Your task to perform on an android device: move an email to a new category in the gmail app Image 0: 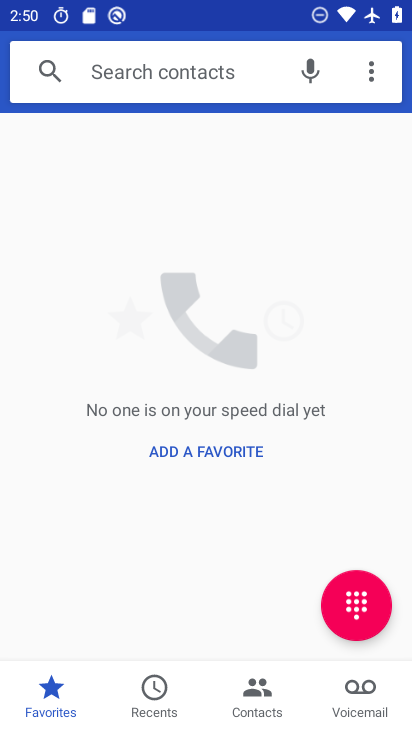
Step 0: press home button
Your task to perform on an android device: move an email to a new category in the gmail app Image 1: 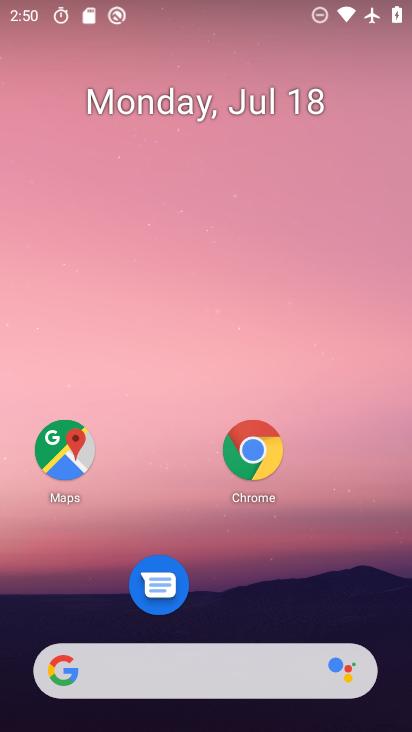
Step 1: drag from (168, 644) to (322, 8)
Your task to perform on an android device: move an email to a new category in the gmail app Image 2: 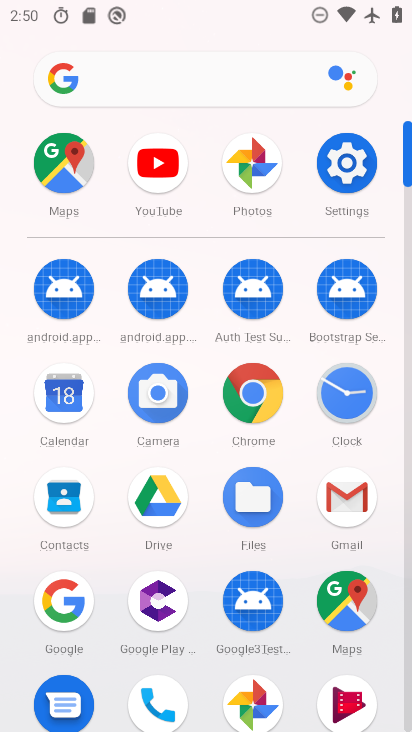
Step 2: click (339, 494)
Your task to perform on an android device: move an email to a new category in the gmail app Image 3: 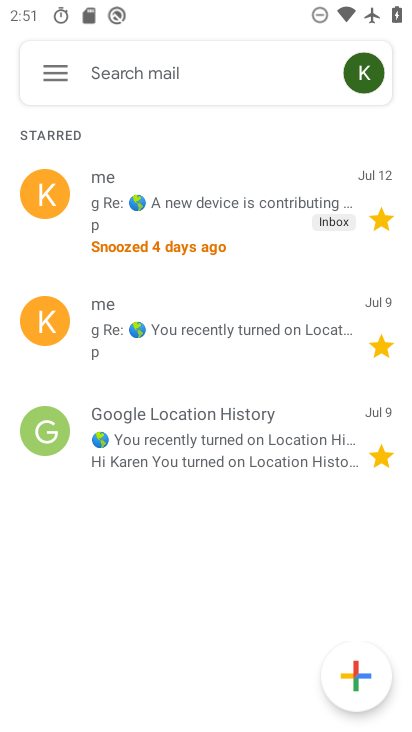
Step 3: click (49, 199)
Your task to perform on an android device: move an email to a new category in the gmail app Image 4: 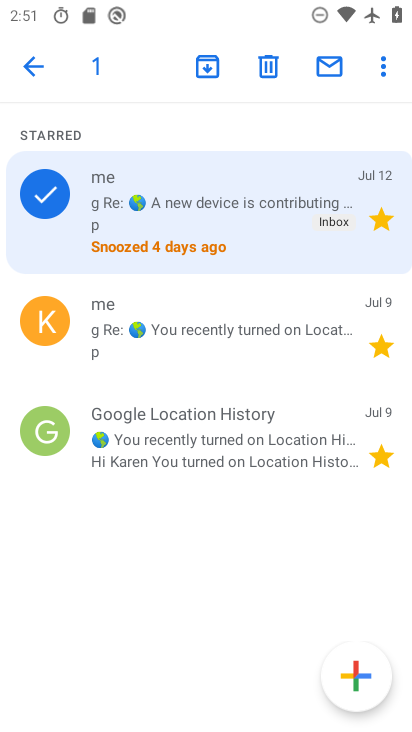
Step 4: click (387, 64)
Your task to perform on an android device: move an email to a new category in the gmail app Image 5: 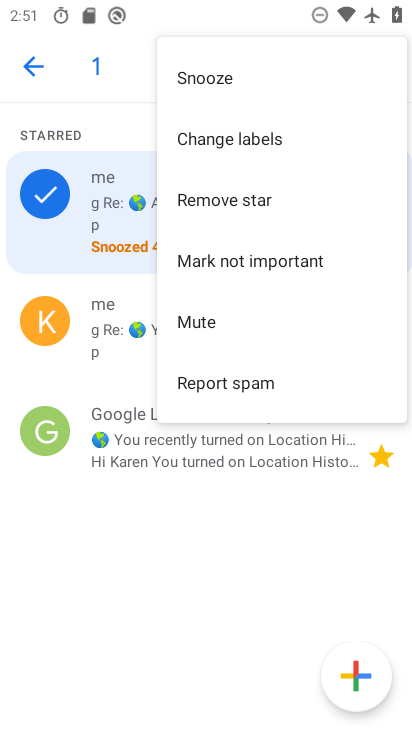
Step 5: click (155, 546)
Your task to perform on an android device: move an email to a new category in the gmail app Image 6: 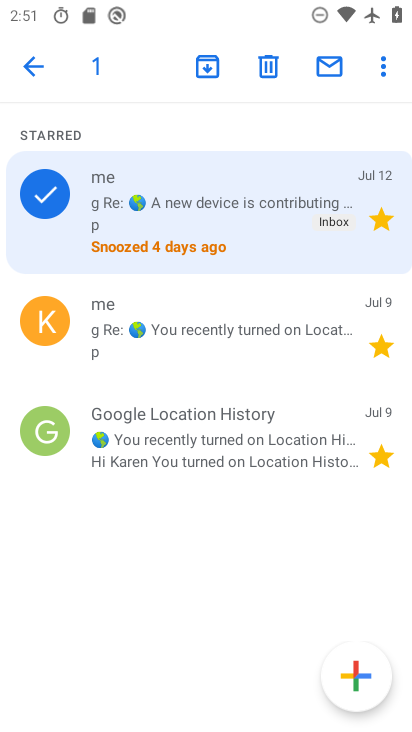
Step 6: click (44, 191)
Your task to perform on an android device: move an email to a new category in the gmail app Image 7: 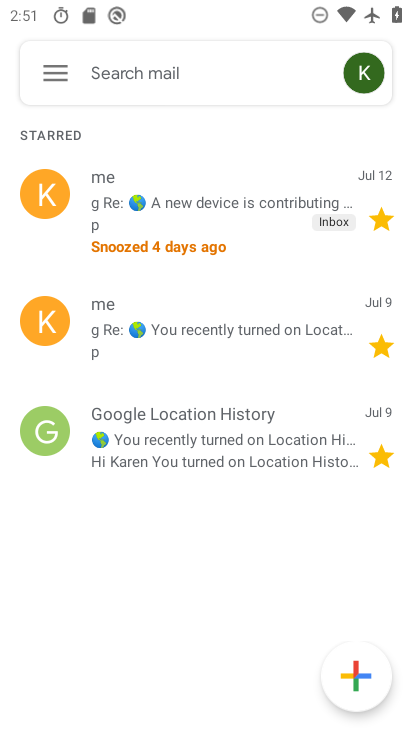
Step 7: click (53, 72)
Your task to perform on an android device: move an email to a new category in the gmail app Image 8: 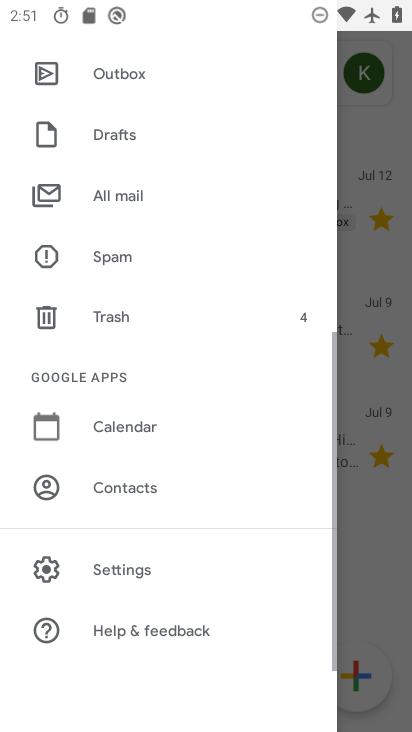
Step 8: drag from (240, 146) to (138, 545)
Your task to perform on an android device: move an email to a new category in the gmail app Image 9: 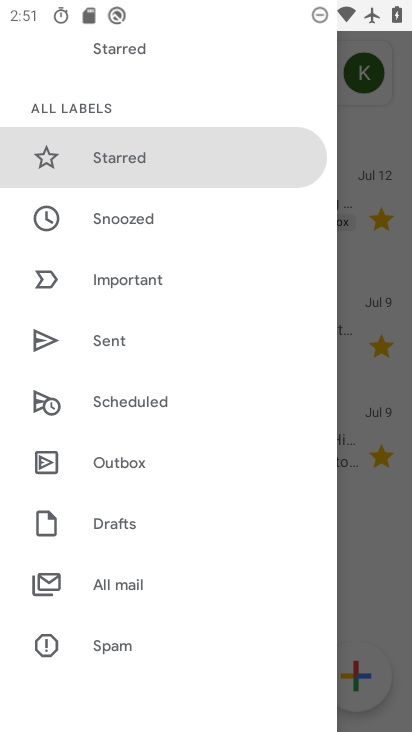
Step 9: drag from (208, 69) to (167, 562)
Your task to perform on an android device: move an email to a new category in the gmail app Image 10: 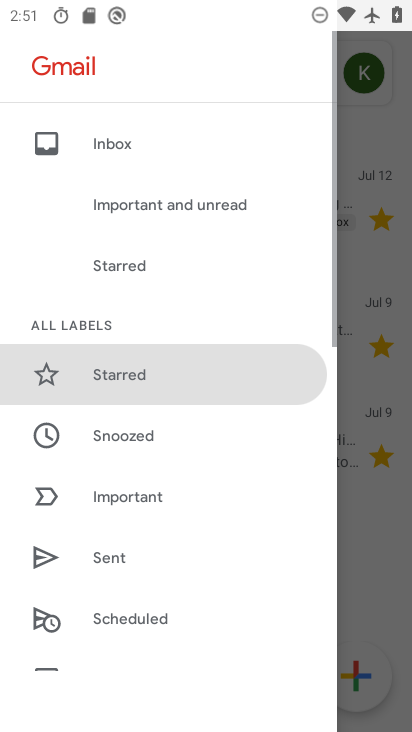
Step 10: click (119, 138)
Your task to perform on an android device: move an email to a new category in the gmail app Image 11: 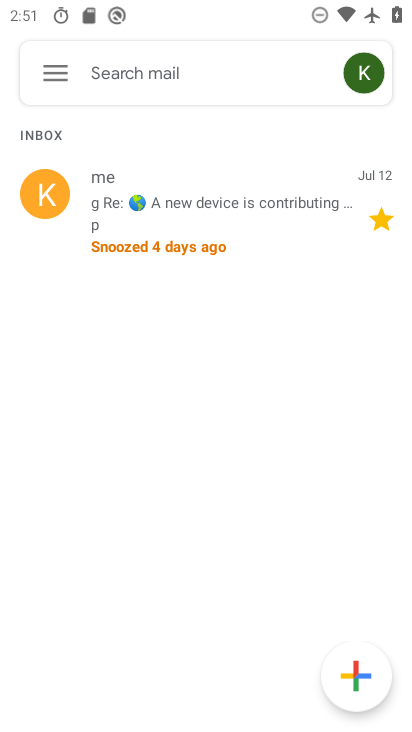
Step 11: click (56, 195)
Your task to perform on an android device: move an email to a new category in the gmail app Image 12: 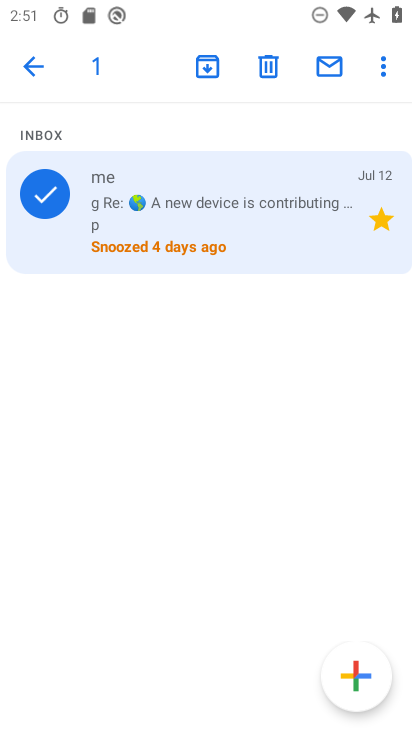
Step 12: click (384, 67)
Your task to perform on an android device: move an email to a new category in the gmail app Image 13: 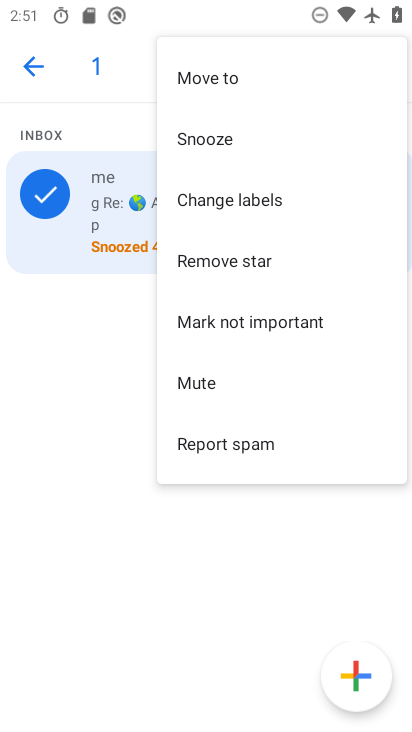
Step 13: click (229, 71)
Your task to perform on an android device: move an email to a new category in the gmail app Image 14: 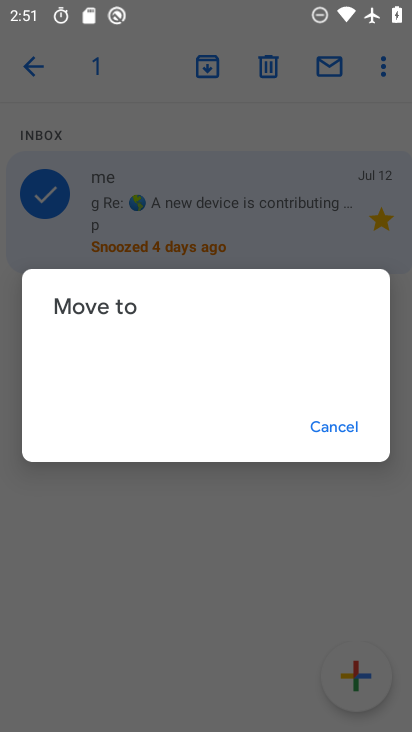
Step 14: click (345, 427)
Your task to perform on an android device: move an email to a new category in the gmail app Image 15: 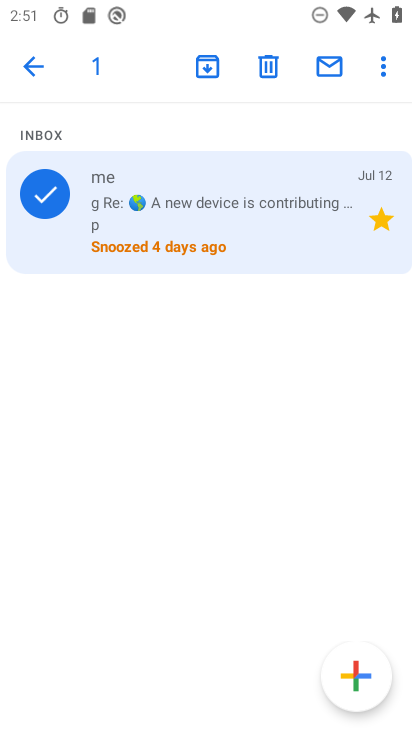
Step 15: task complete